Your task to perform on an android device: change the clock display to digital Image 0: 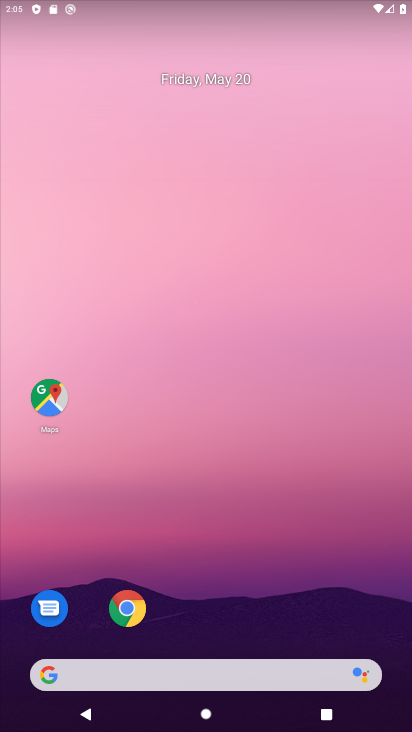
Step 0: drag from (250, 512) to (291, 52)
Your task to perform on an android device: change the clock display to digital Image 1: 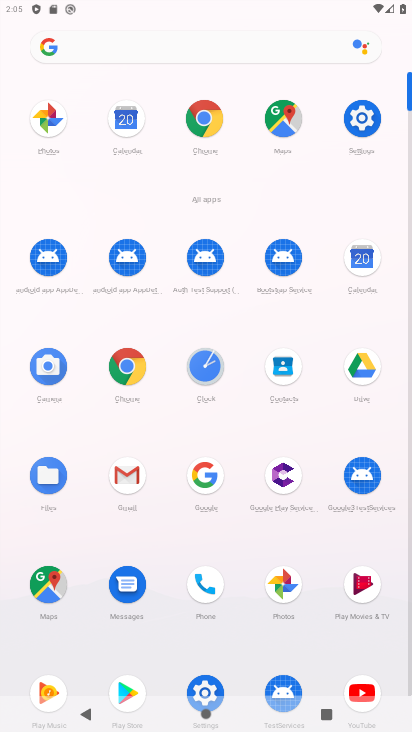
Step 1: click (216, 538)
Your task to perform on an android device: change the clock display to digital Image 2: 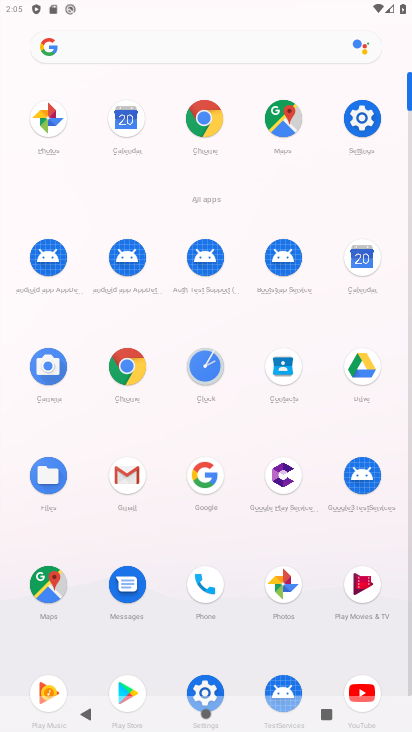
Step 2: drag from (219, 431) to (260, 145)
Your task to perform on an android device: change the clock display to digital Image 3: 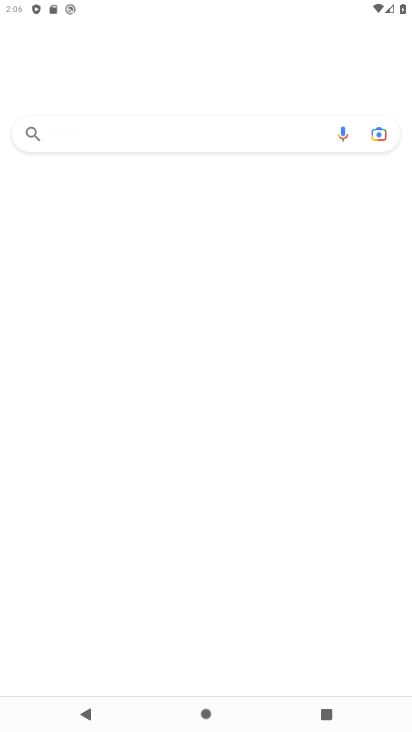
Step 3: click (190, 343)
Your task to perform on an android device: change the clock display to digital Image 4: 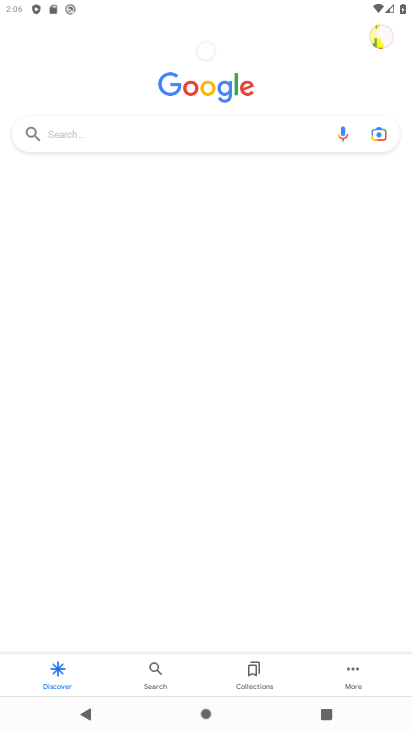
Step 4: press back button
Your task to perform on an android device: change the clock display to digital Image 5: 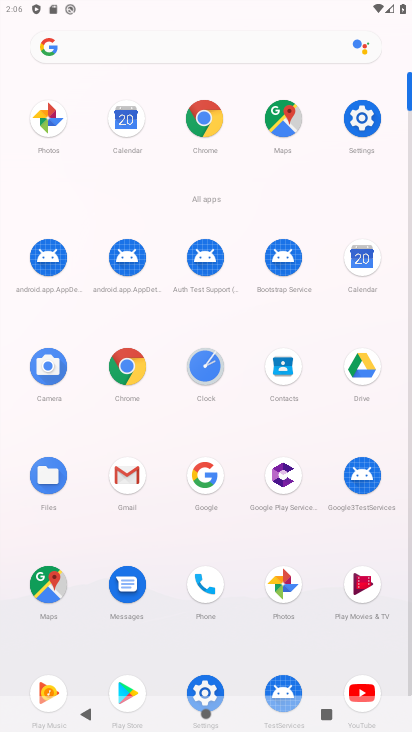
Step 5: click (215, 372)
Your task to perform on an android device: change the clock display to digital Image 6: 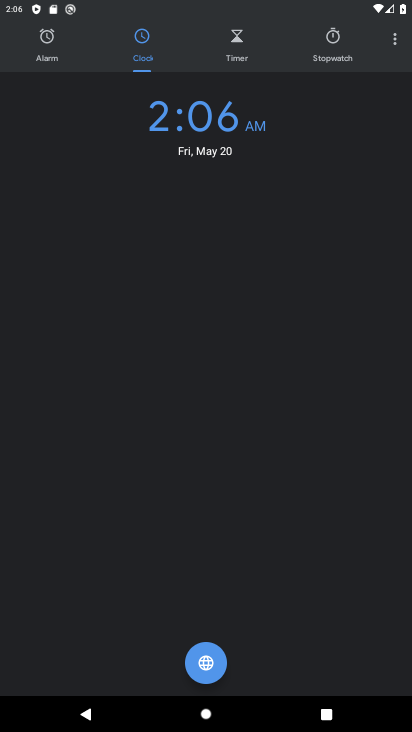
Step 6: click (394, 32)
Your task to perform on an android device: change the clock display to digital Image 7: 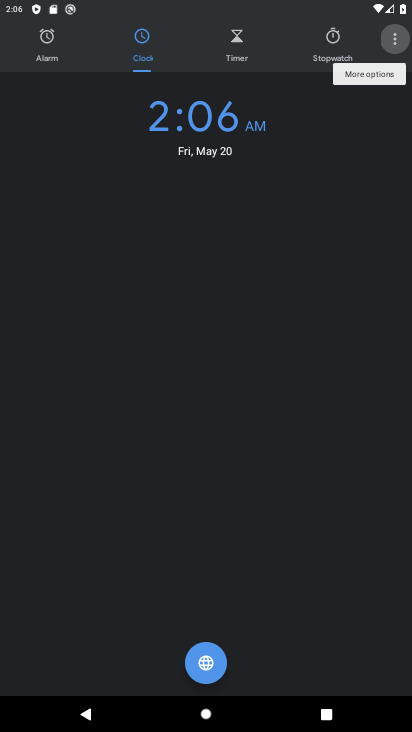
Step 7: click (394, 32)
Your task to perform on an android device: change the clock display to digital Image 8: 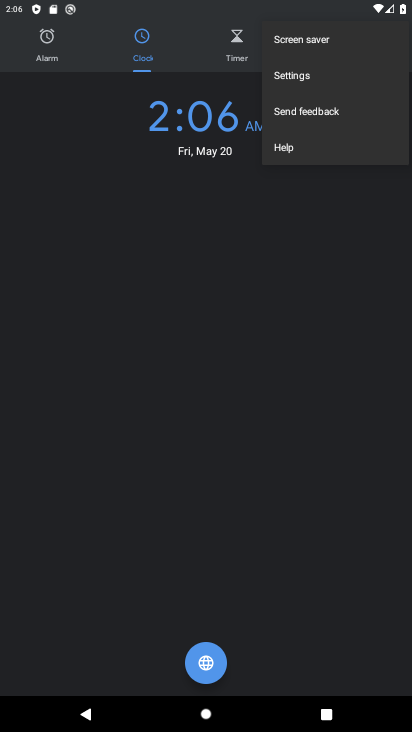
Step 8: click (283, 78)
Your task to perform on an android device: change the clock display to digital Image 9: 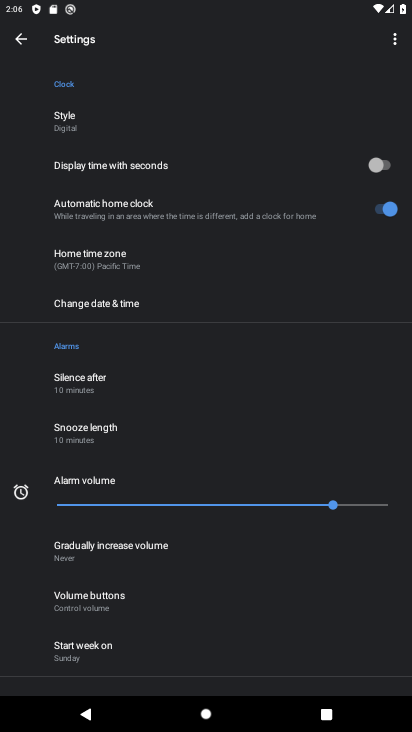
Step 9: click (100, 116)
Your task to perform on an android device: change the clock display to digital Image 10: 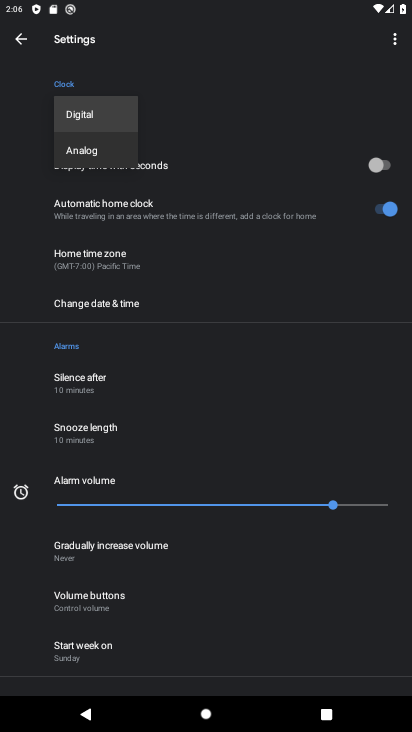
Step 10: click (87, 116)
Your task to perform on an android device: change the clock display to digital Image 11: 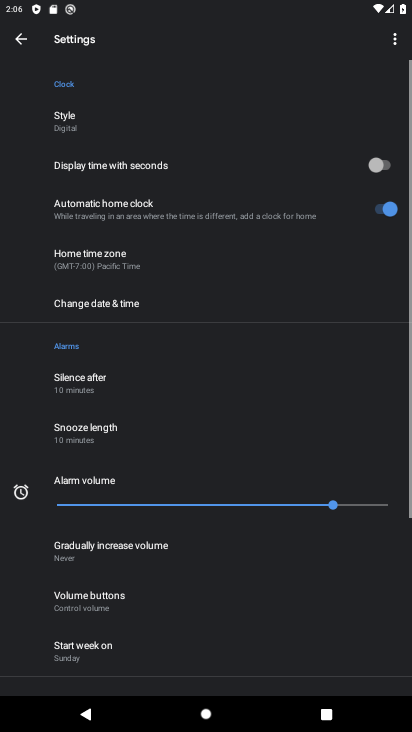
Step 11: task complete